Your task to perform on an android device: Toggle the flashlight Image 0: 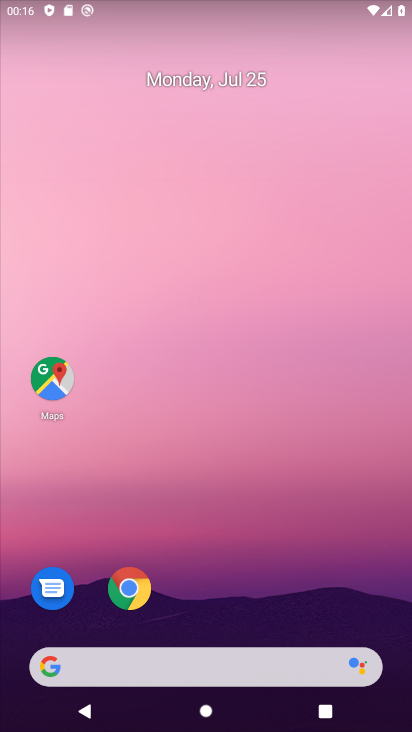
Step 0: drag from (193, 640) to (191, 52)
Your task to perform on an android device: Toggle the flashlight Image 1: 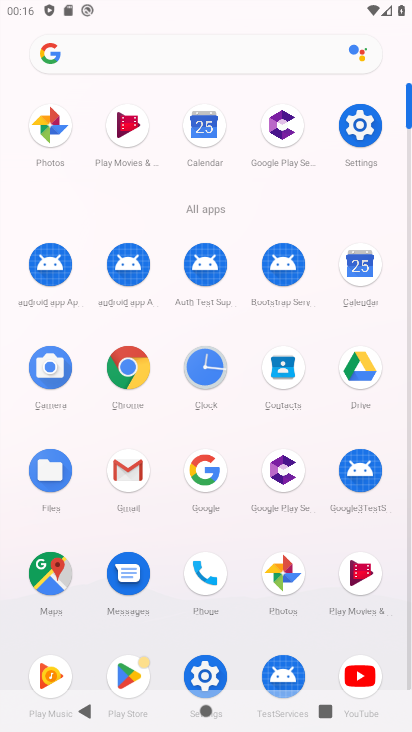
Step 1: click (356, 132)
Your task to perform on an android device: Toggle the flashlight Image 2: 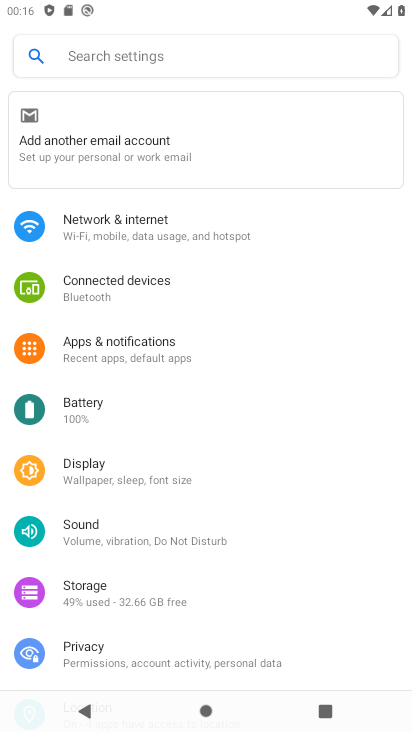
Step 2: click (168, 54)
Your task to perform on an android device: Toggle the flashlight Image 3: 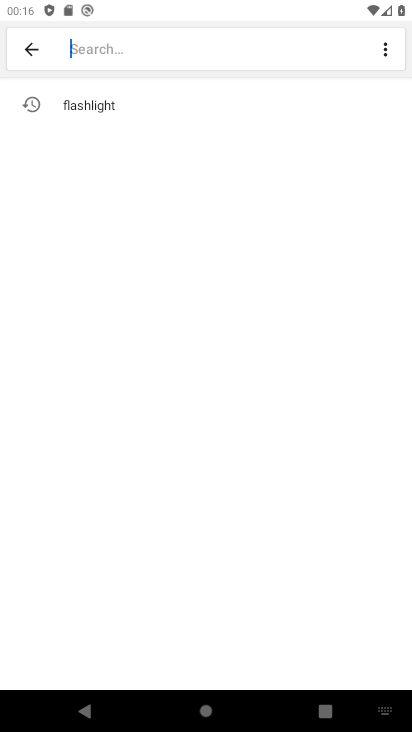
Step 3: type "flashlight"
Your task to perform on an android device: Toggle the flashlight Image 4: 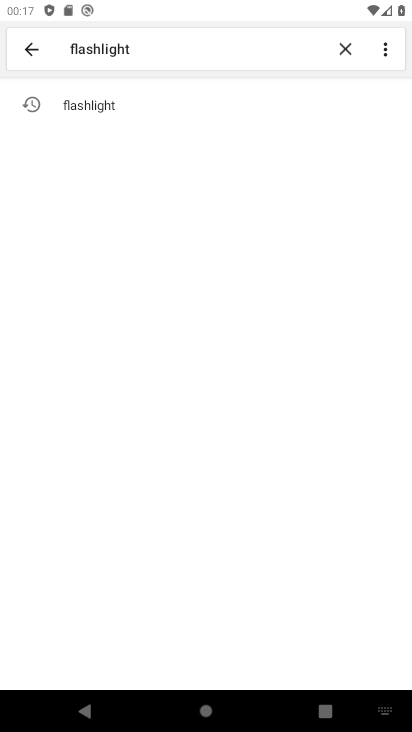
Step 4: click (115, 107)
Your task to perform on an android device: Toggle the flashlight Image 5: 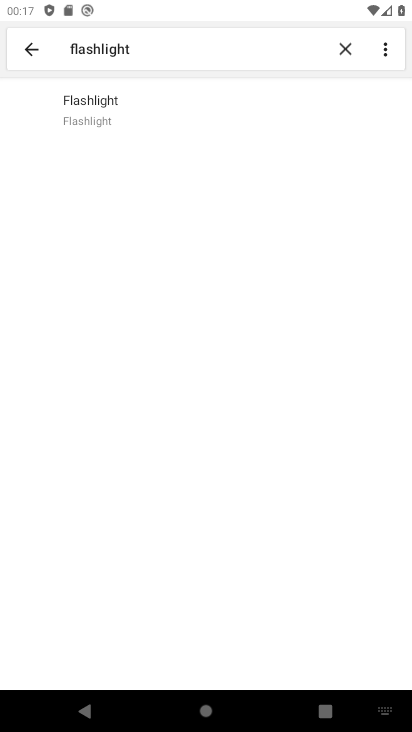
Step 5: click (97, 103)
Your task to perform on an android device: Toggle the flashlight Image 6: 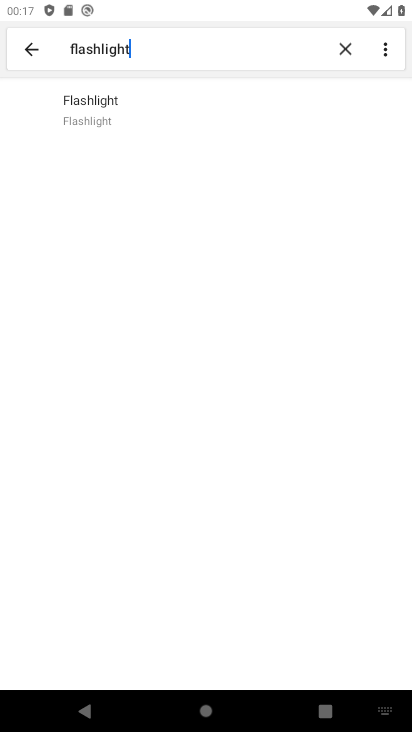
Step 6: click (97, 106)
Your task to perform on an android device: Toggle the flashlight Image 7: 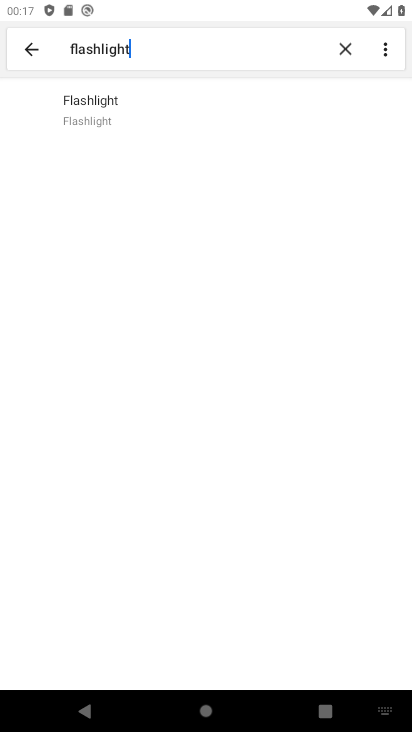
Step 7: task complete